Your task to perform on an android device: Open location settings Image 0: 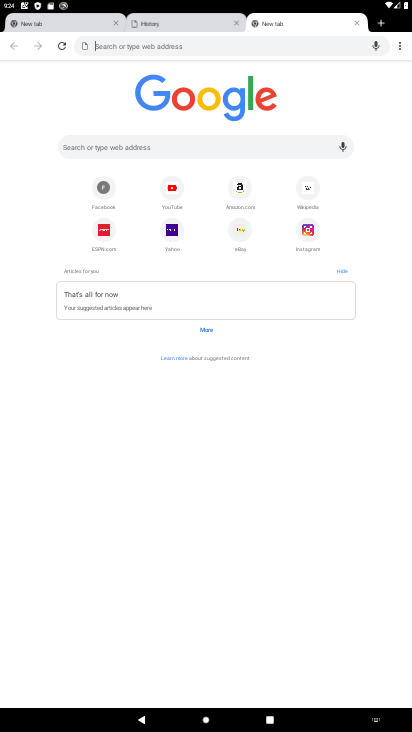
Step 0: press home button
Your task to perform on an android device: Open location settings Image 1: 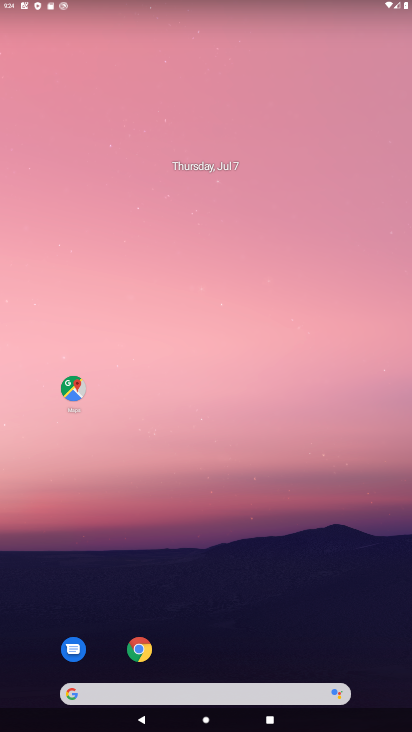
Step 1: click (299, 222)
Your task to perform on an android device: Open location settings Image 2: 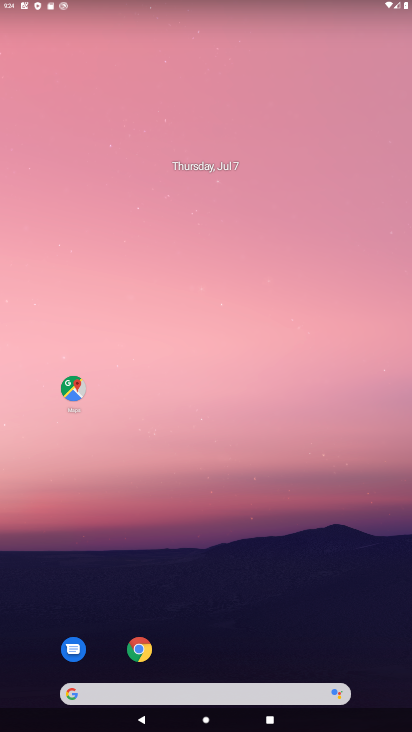
Step 2: drag from (208, 438) to (224, 240)
Your task to perform on an android device: Open location settings Image 3: 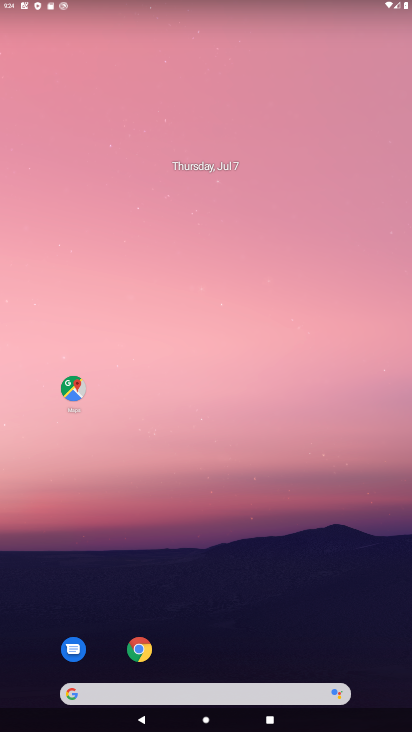
Step 3: drag from (233, 387) to (253, 11)
Your task to perform on an android device: Open location settings Image 4: 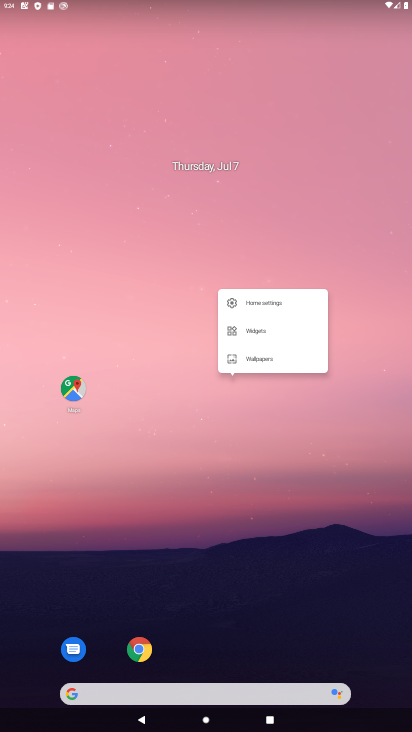
Step 4: drag from (243, 306) to (230, 168)
Your task to perform on an android device: Open location settings Image 5: 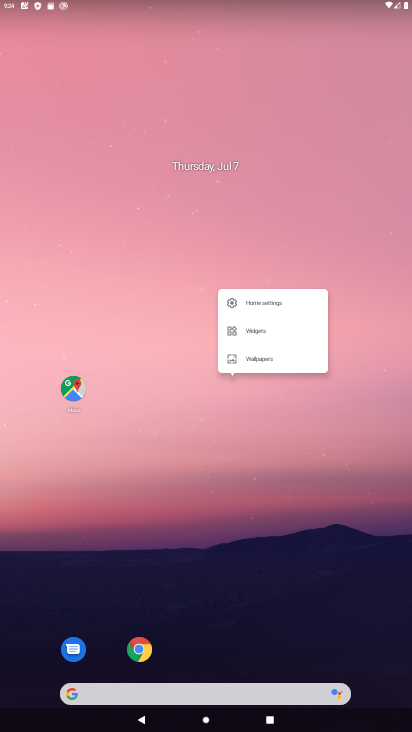
Step 5: click (239, 456)
Your task to perform on an android device: Open location settings Image 6: 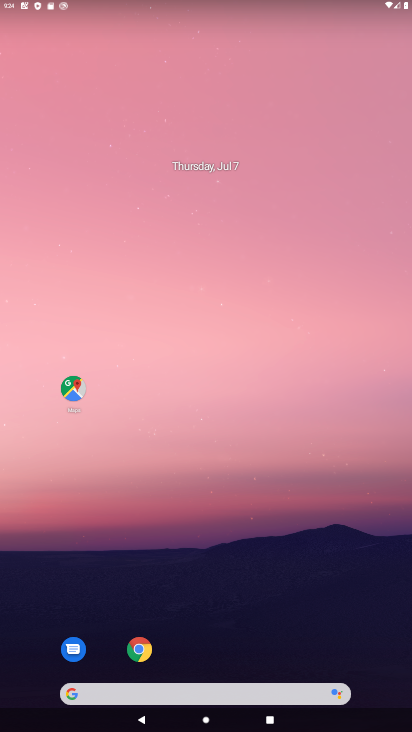
Step 6: drag from (239, 456) to (215, 12)
Your task to perform on an android device: Open location settings Image 7: 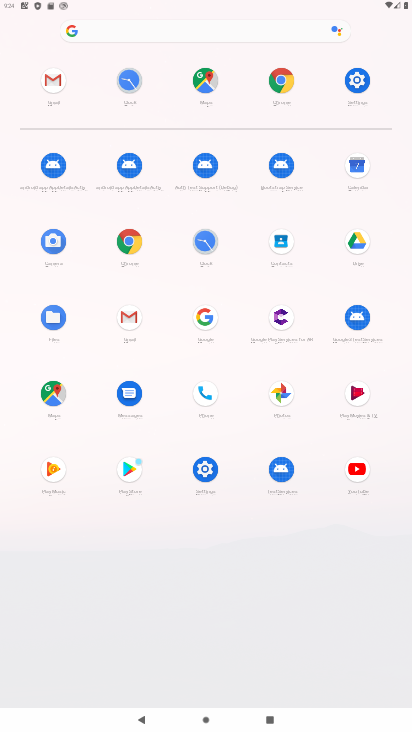
Step 7: click (363, 90)
Your task to perform on an android device: Open location settings Image 8: 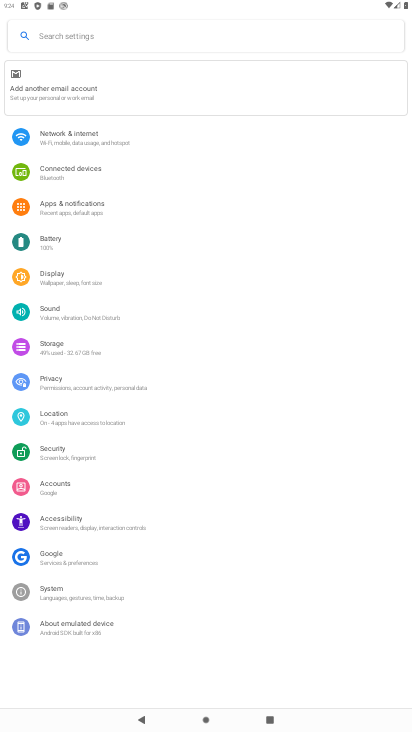
Step 8: click (95, 415)
Your task to perform on an android device: Open location settings Image 9: 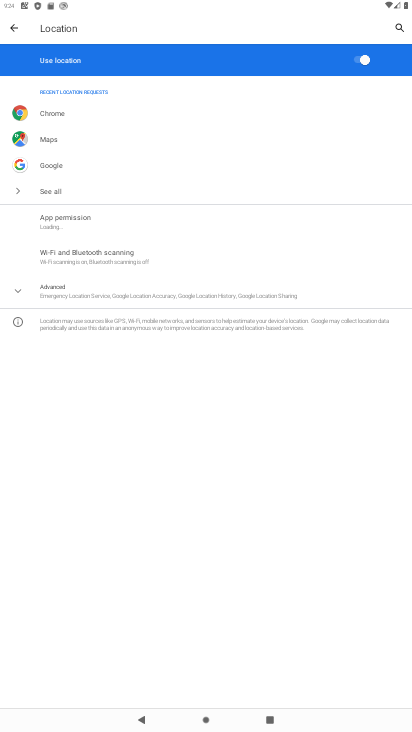
Step 9: task complete